Your task to perform on an android device: What's on my calendar tomorrow? Image 0: 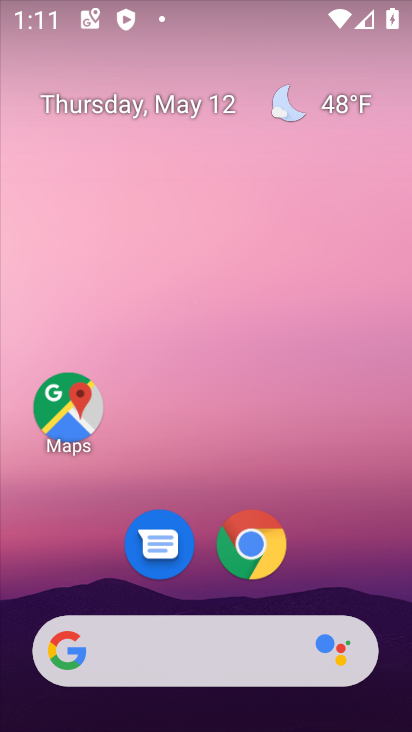
Step 0: drag from (323, 542) to (175, 11)
Your task to perform on an android device: What's on my calendar tomorrow? Image 1: 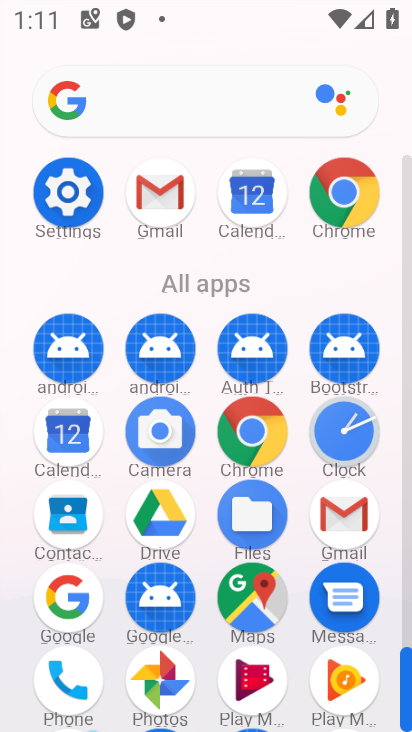
Step 1: drag from (13, 524) to (16, 267)
Your task to perform on an android device: What's on my calendar tomorrow? Image 2: 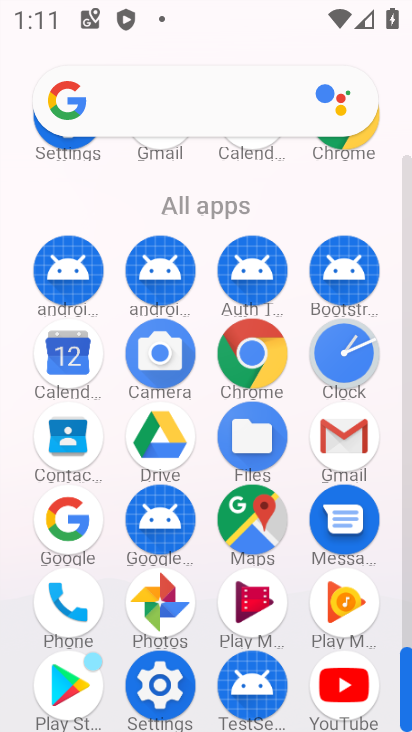
Step 2: drag from (8, 531) to (3, 254)
Your task to perform on an android device: What's on my calendar tomorrow? Image 3: 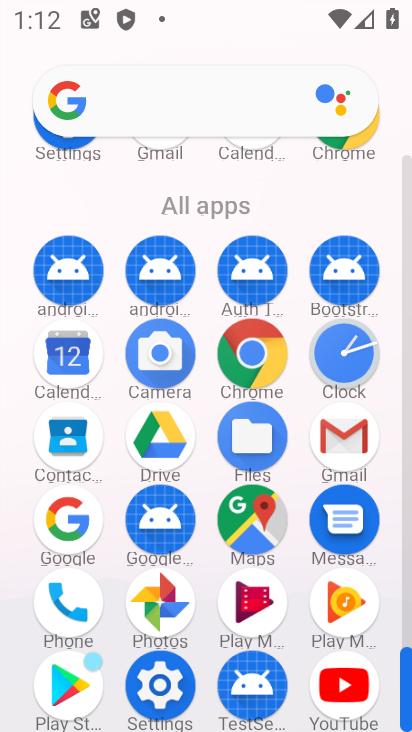
Step 3: drag from (21, 600) to (7, 224)
Your task to perform on an android device: What's on my calendar tomorrow? Image 4: 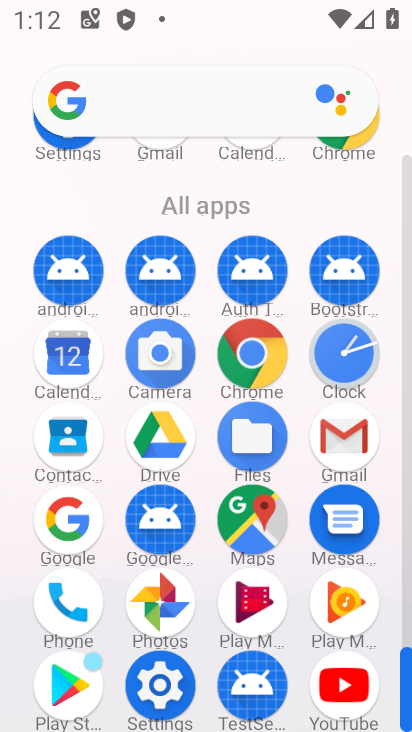
Step 4: click (71, 348)
Your task to perform on an android device: What's on my calendar tomorrow? Image 5: 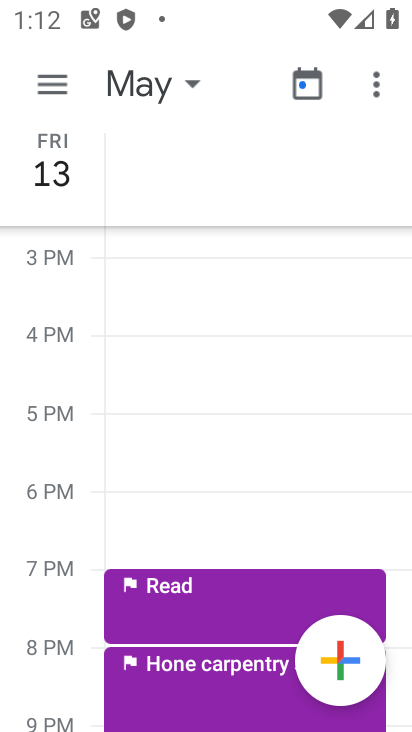
Step 5: task complete